Your task to perform on an android device: Show the shopping cart on amazon.com. Add bose soundlink mini to the cart on amazon.com, then select checkout. Image 0: 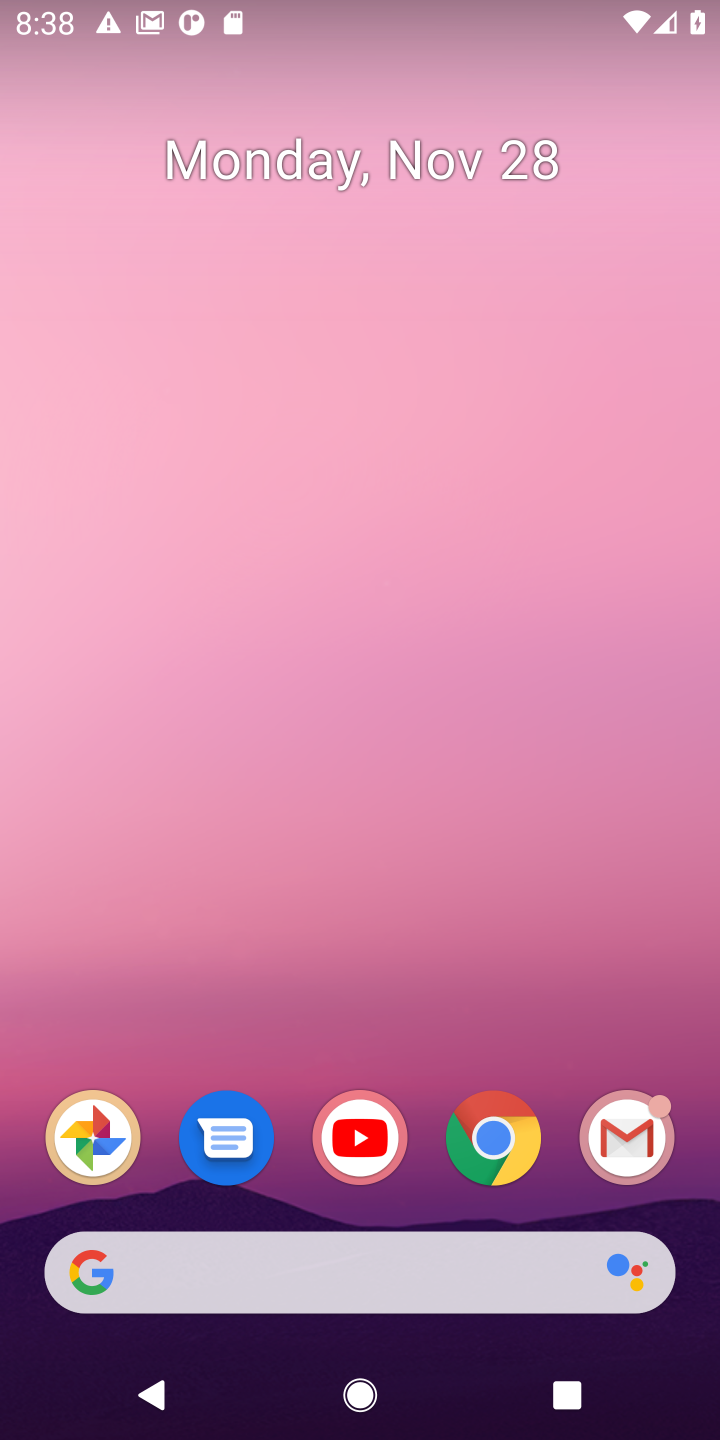
Step 0: click (503, 1156)
Your task to perform on an android device: Show the shopping cart on amazon.com. Add bose soundlink mini to the cart on amazon.com, then select checkout. Image 1: 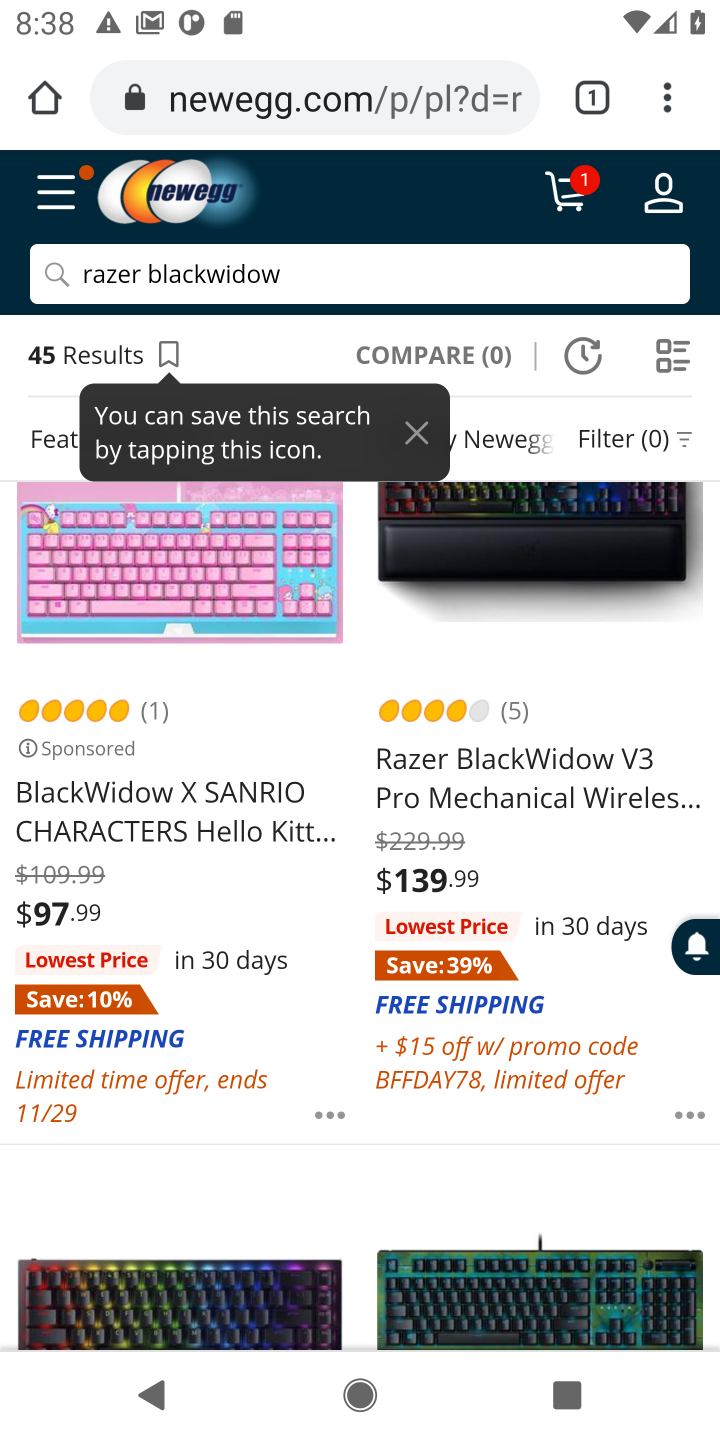
Step 1: click (242, 108)
Your task to perform on an android device: Show the shopping cart on amazon.com. Add bose soundlink mini to the cart on amazon.com, then select checkout. Image 2: 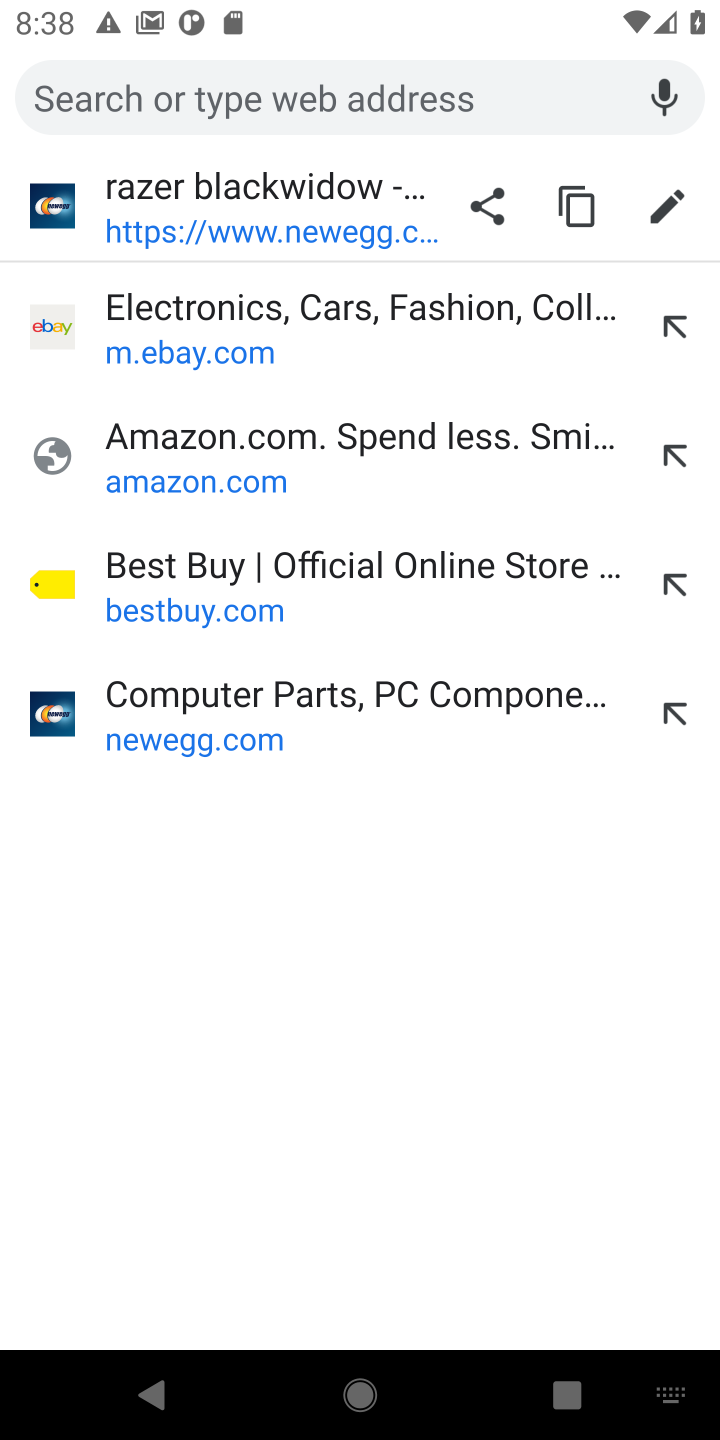
Step 2: click (161, 444)
Your task to perform on an android device: Show the shopping cart on amazon.com. Add bose soundlink mini to the cart on amazon.com, then select checkout. Image 3: 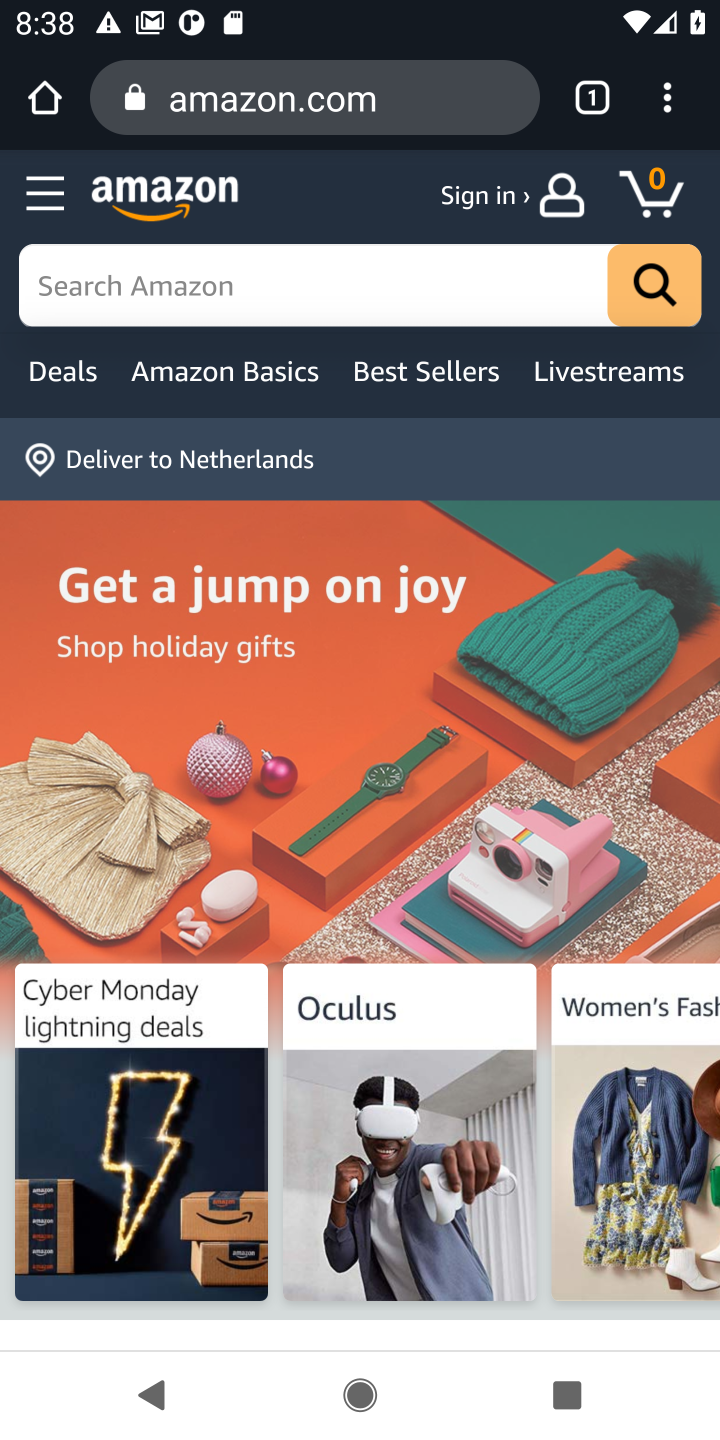
Step 3: click (656, 202)
Your task to perform on an android device: Show the shopping cart on amazon.com. Add bose soundlink mini to the cart on amazon.com, then select checkout. Image 4: 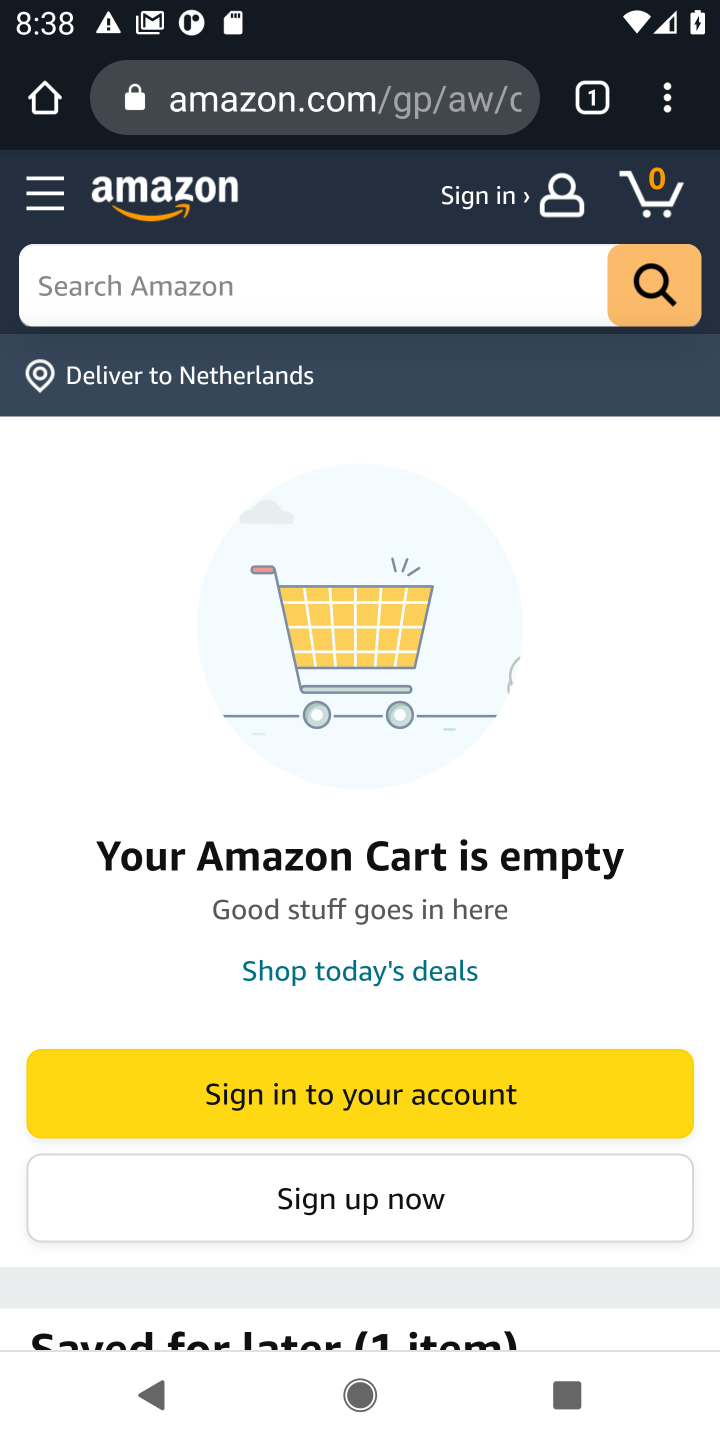
Step 4: click (179, 283)
Your task to perform on an android device: Show the shopping cart on amazon.com. Add bose soundlink mini to the cart on amazon.com, then select checkout. Image 5: 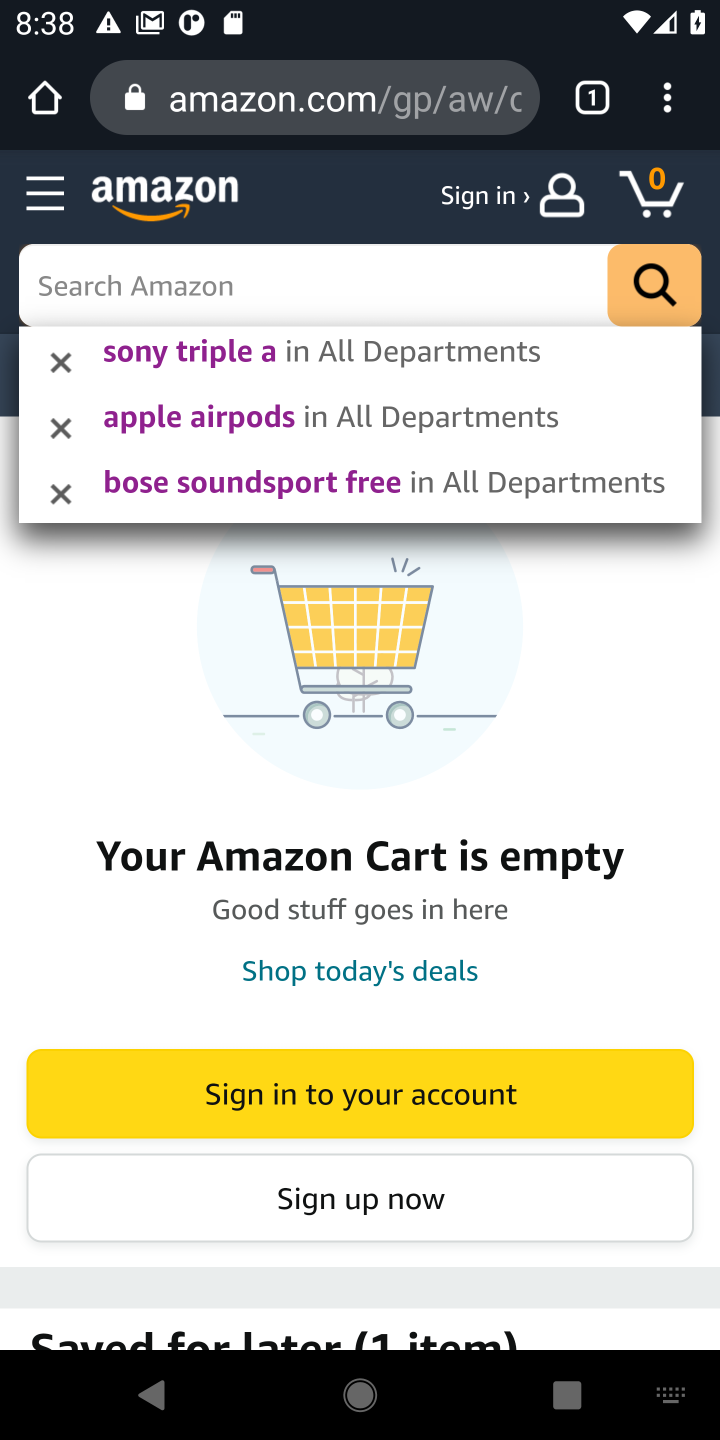
Step 5: type "bose soundlink mini "
Your task to perform on an android device: Show the shopping cart on amazon.com. Add bose soundlink mini to the cart on amazon.com, then select checkout. Image 6: 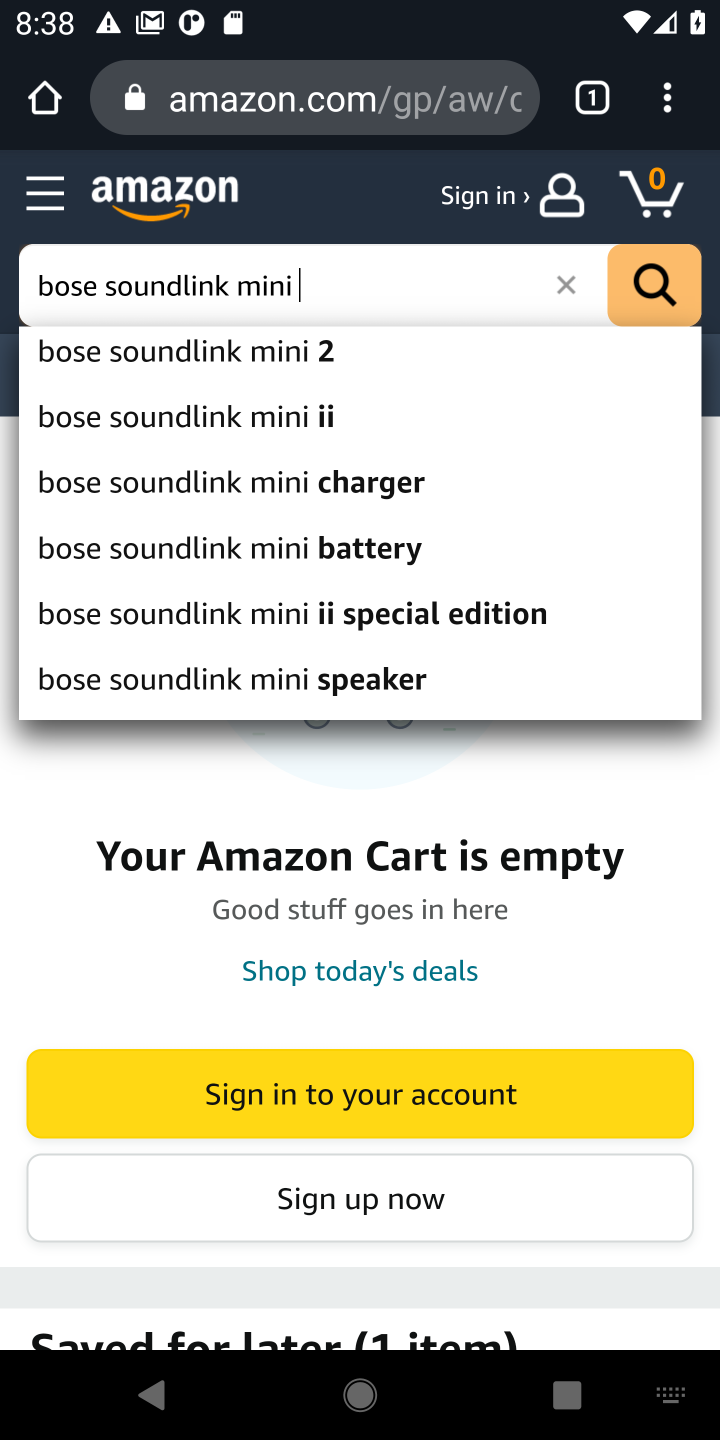
Step 6: click (199, 354)
Your task to perform on an android device: Show the shopping cart on amazon.com. Add bose soundlink mini to the cart on amazon.com, then select checkout. Image 7: 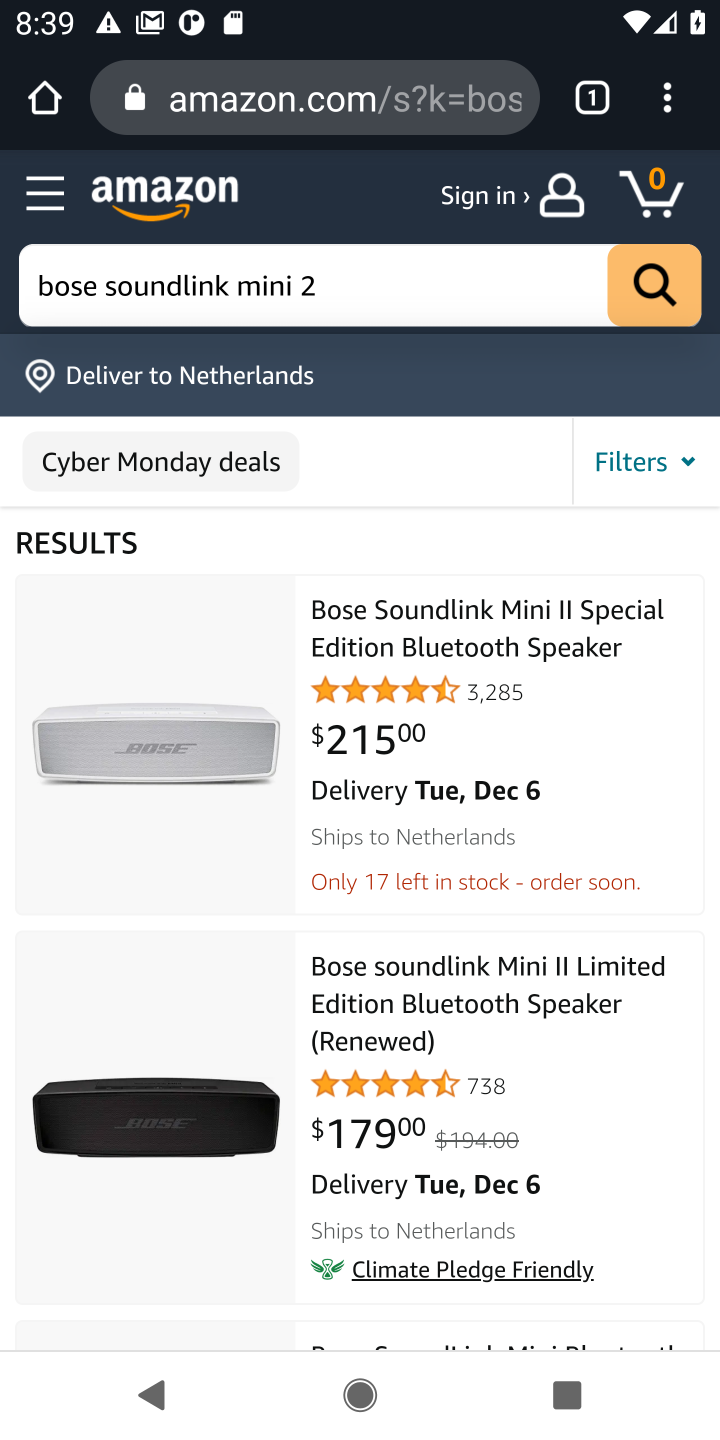
Step 7: click (371, 993)
Your task to perform on an android device: Show the shopping cart on amazon.com. Add bose soundlink mini to the cart on amazon.com, then select checkout. Image 8: 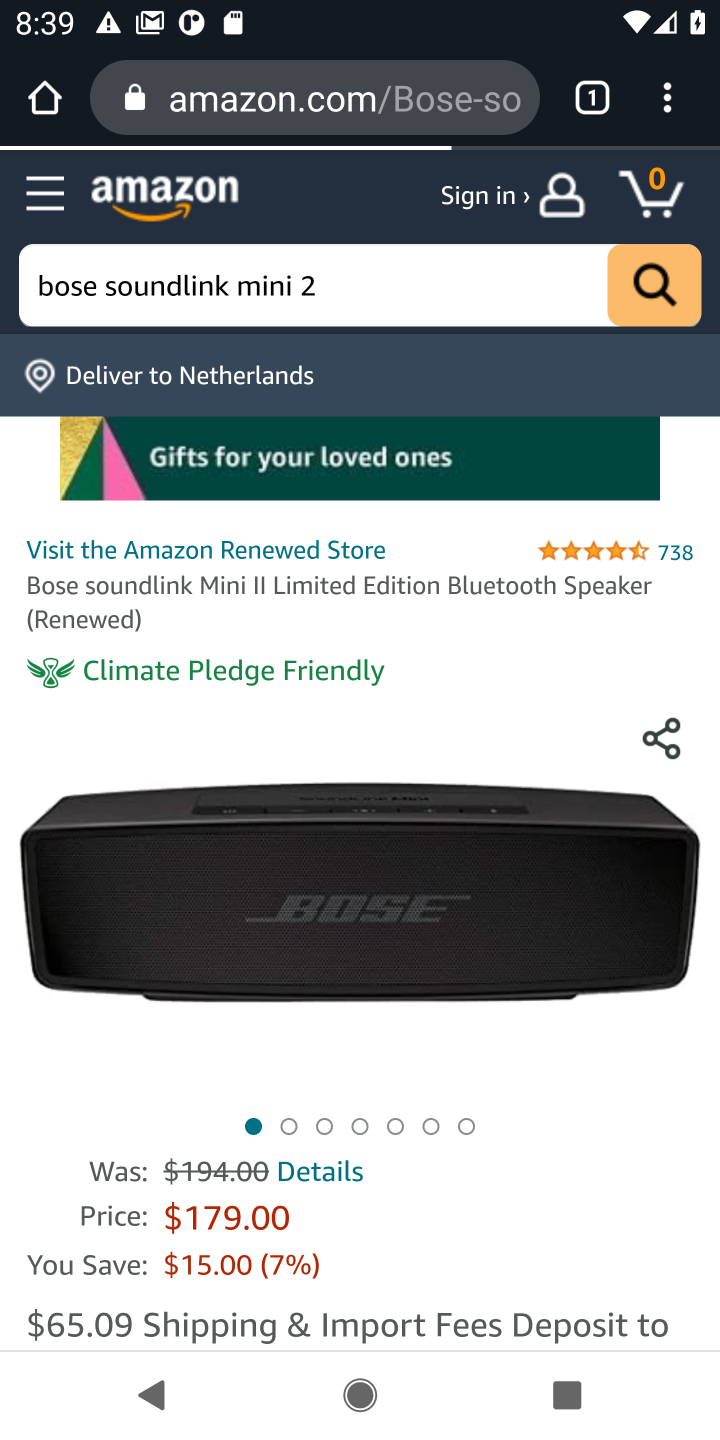
Step 8: drag from (474, 1149) to (483, 572)
Your task to perform on an android device: Show the shopping cart on amazon.com. Add bose soundlink mini to the cart on amazon.com, then select checkout. Image 9: 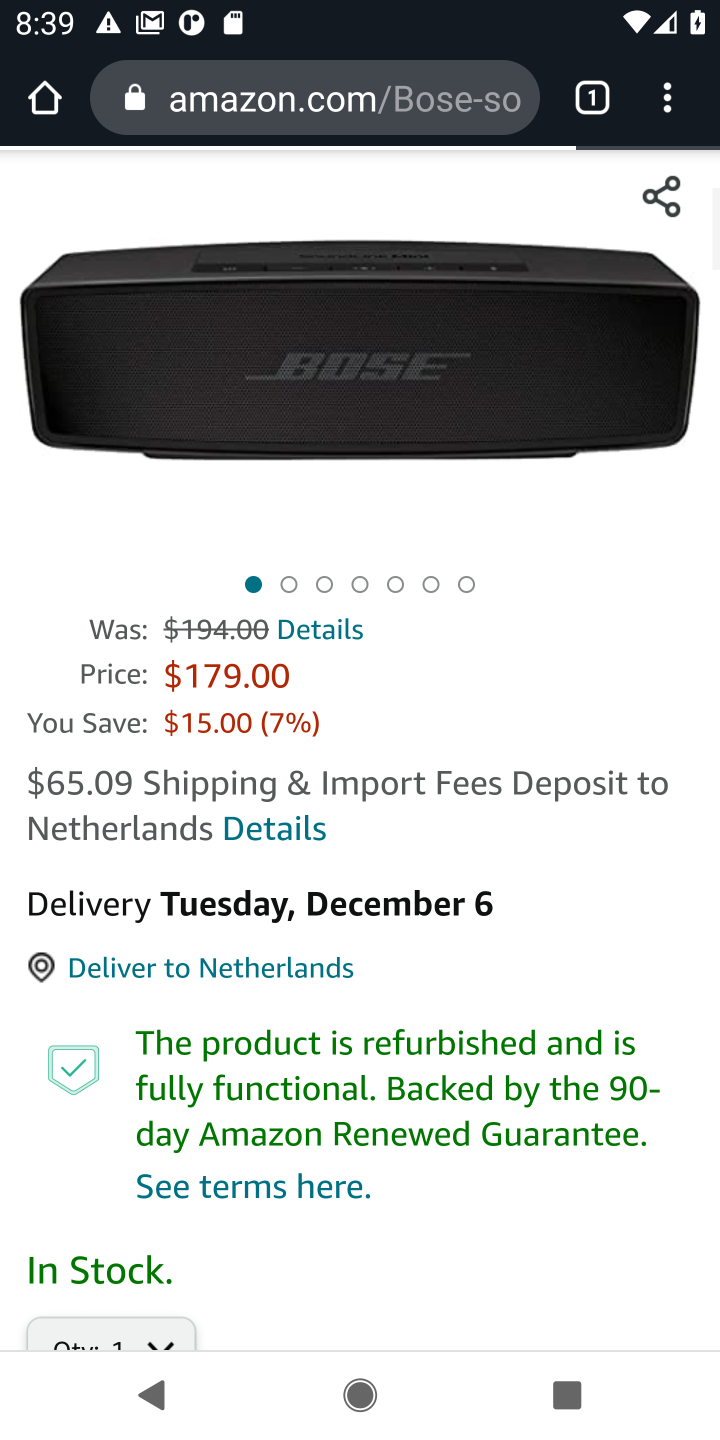
Step 9: drag from (489, 919) to (479, 436)
Your task to perform on an android device: Show the shopping cart on amazon.com. Add bose soundlink mini to the cart on amazon.com, then select checkout. Image 10: 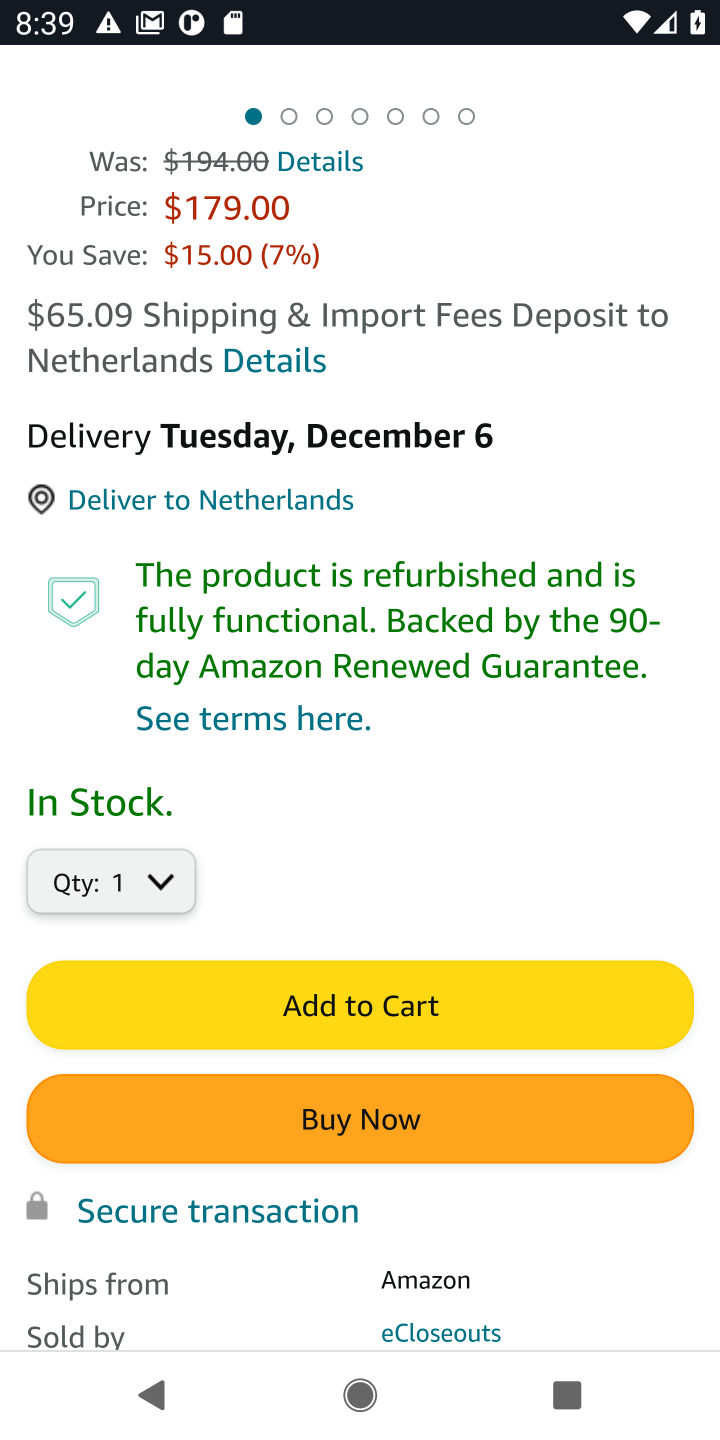
Step 10: click (314, 1004)
Your task to perform on an android device: Show the shopping cart on amazon.com. Add bose soundlink mini to the cart on amazon.com, then select checkout. Image 11: 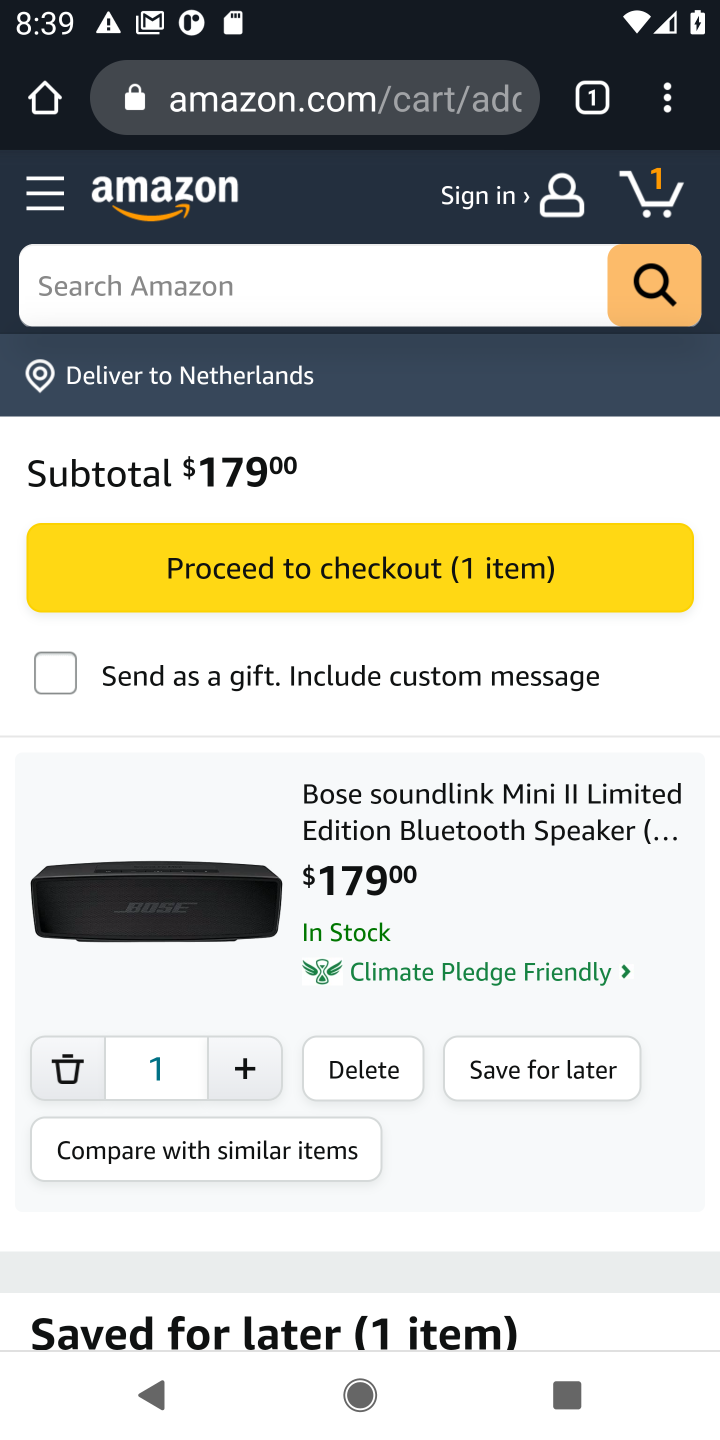
Step 11: click (285, 572)
Your task to perform on an android device: Show the shopping cart on amazon.com. Add bose soundlink mini to the cart on amazon.com, then select checkout. Image 12: 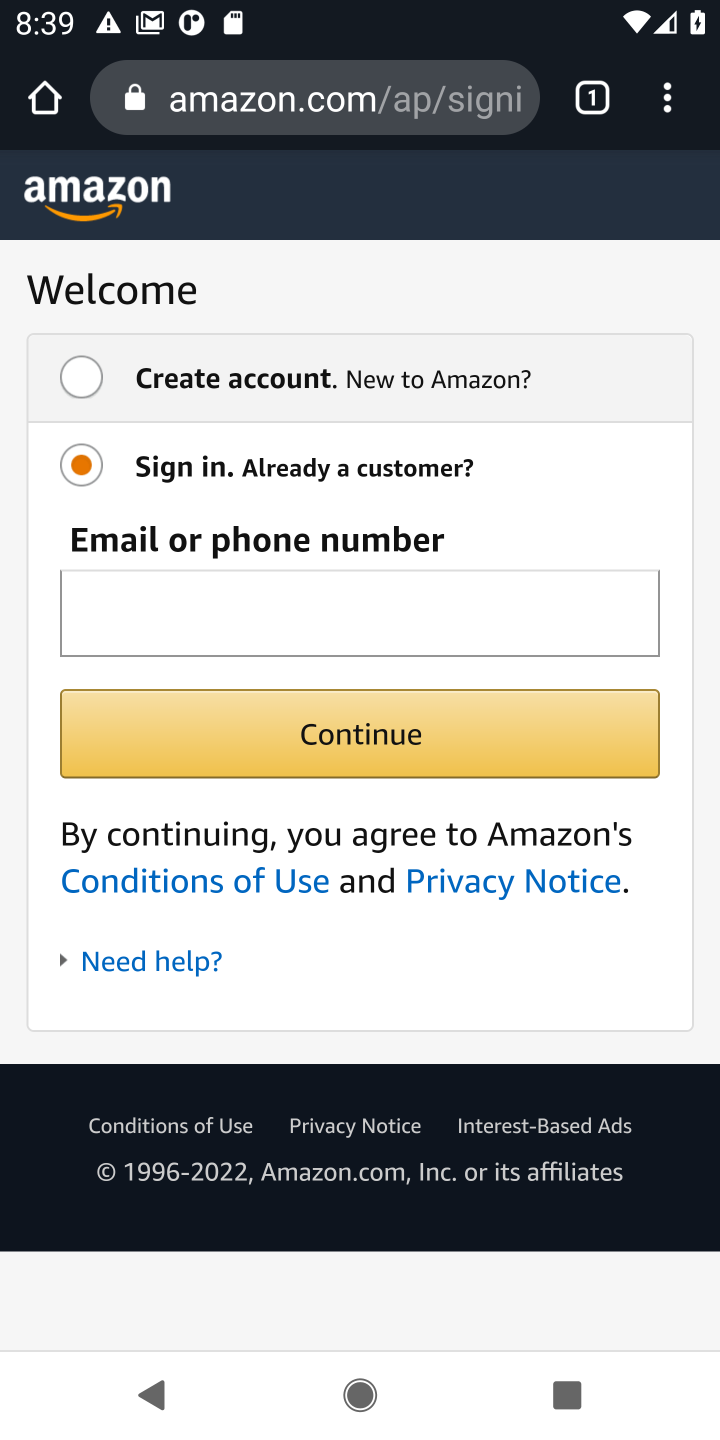
Step 12: task complete